Your task to perform on an android device: set the stopwatch Image 0: 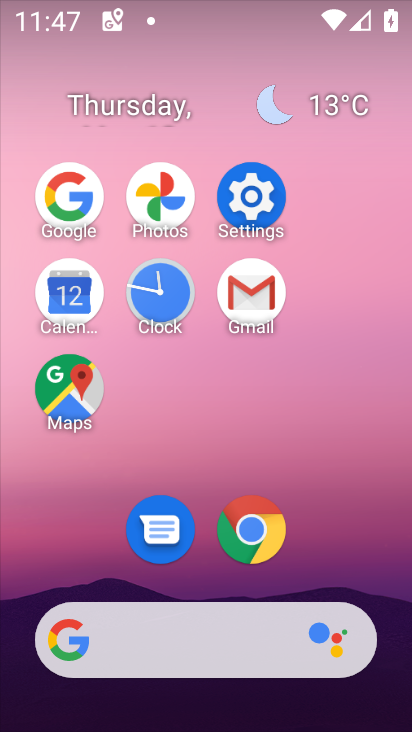
Step 0: click (169, 309)
Your task to perform on an android device: set the stopwatch Image 1: 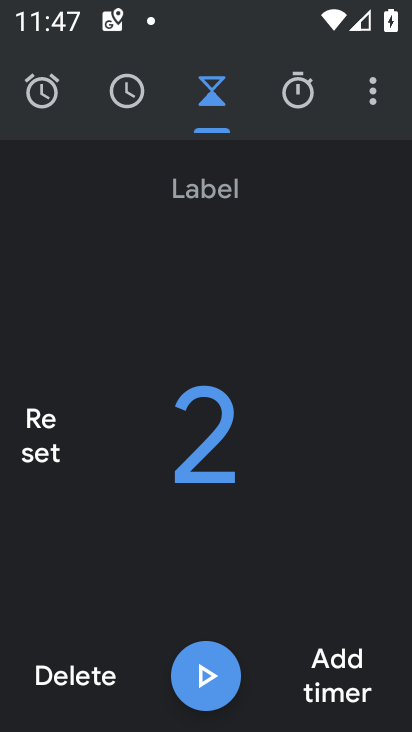
Step 1: click (295, 98)
Your task to perform on an android device: set the stopwatch Image 2: 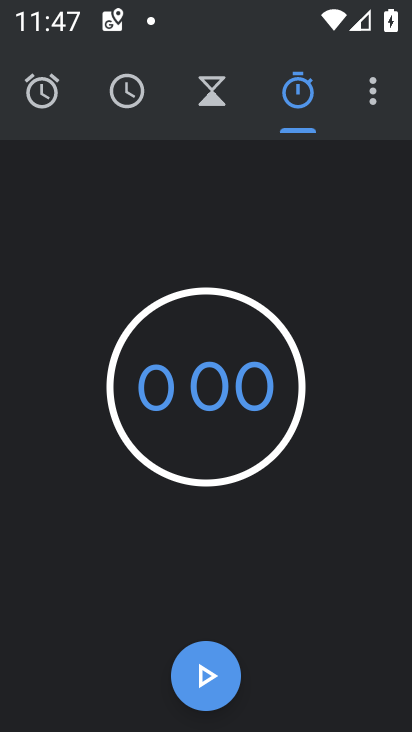
Step 2: click (211, 678)
Your task to perform on an android device: set the stopwatch Image 3: 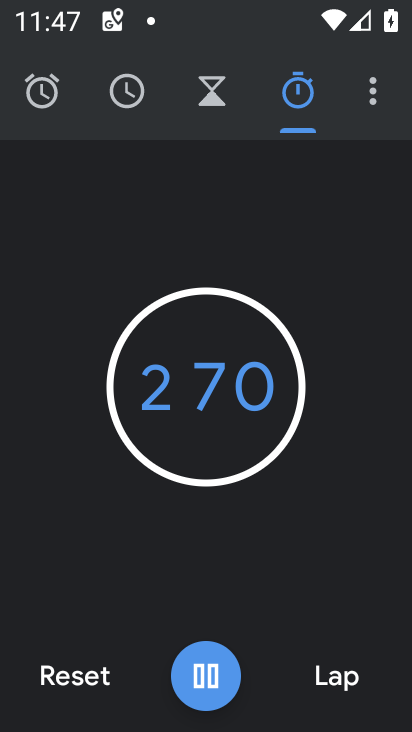
Step 3: task complete